Your task to perform on an android device: Search for pizza restaurants on Maps Image 0: 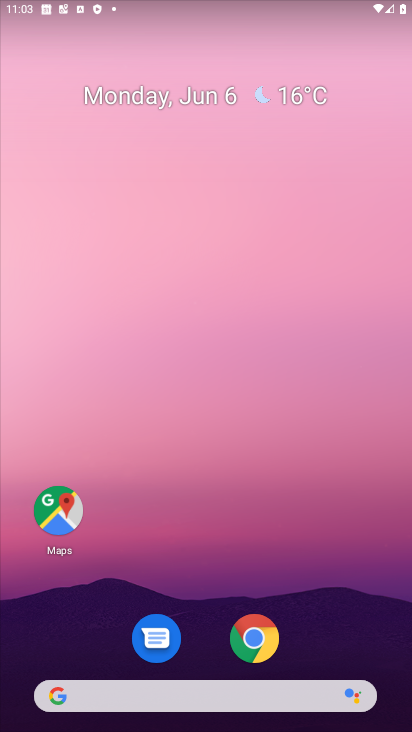
Step 0: drag from (190, 712) to (196, 145)
Your task to perform on an android device: Search for pizza restaurants on Maps Image 1: 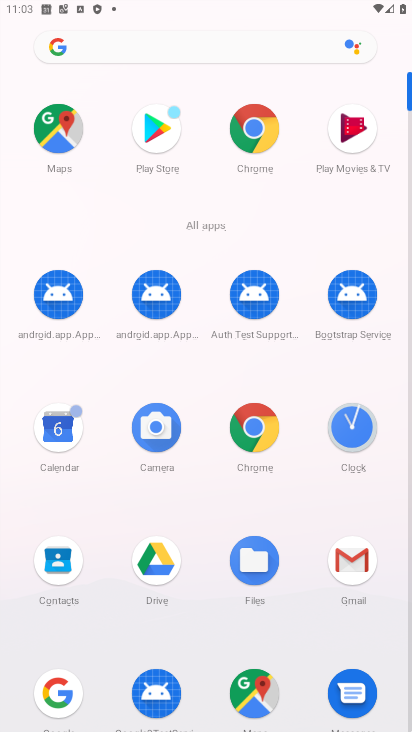
Step 1: click (35, 145)
Your task to perform on an android device: Search for pizza restaurants on Maps Image 2: 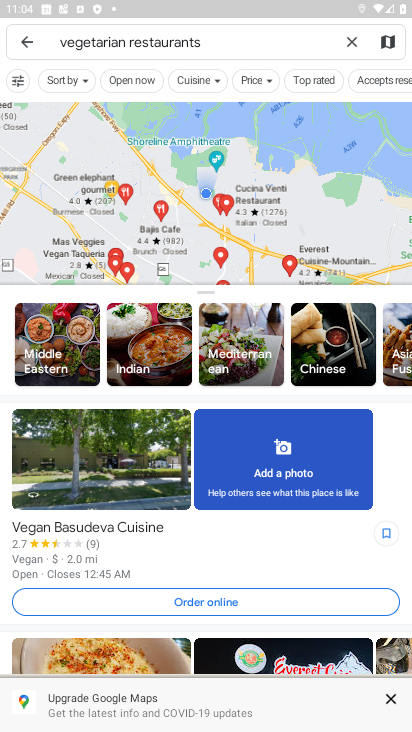
Step 2: click (340, 40)
Your task to perform on an android device: Search for pizza restaurants on Maps Image 3: 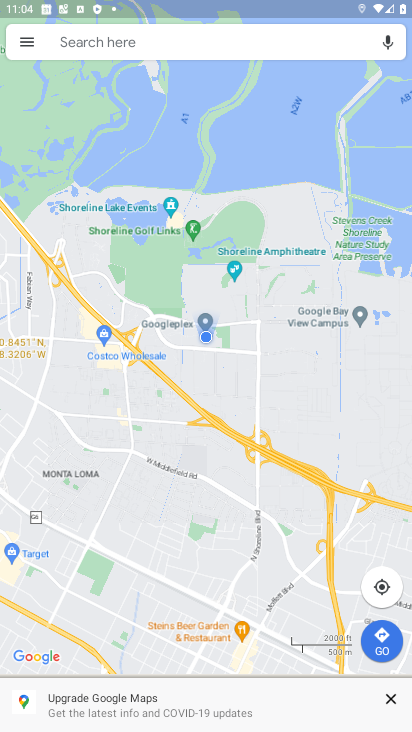
Step 3: click (236, 52)
Your task to perform on an android device: Search for pizza restaurants on Maps Image 4: 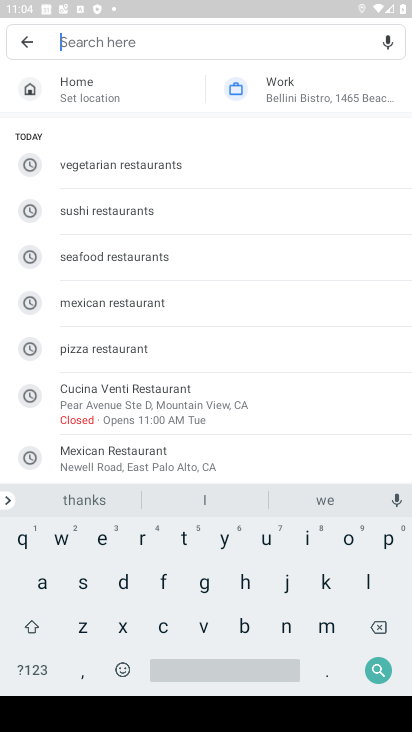
Step 4: click (108, 353)
Your task to perform on an android device: Search for pizza restaurants on Maps Image 5: 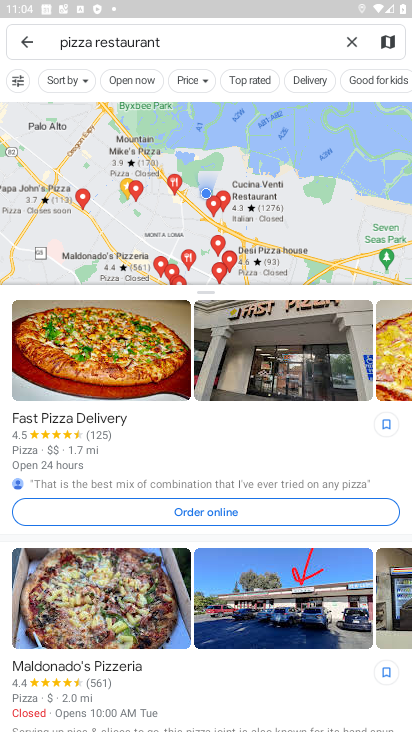
Step 5: task complete